Your task to perform on an android device: make emails show in primary in the gmail app Image 0: 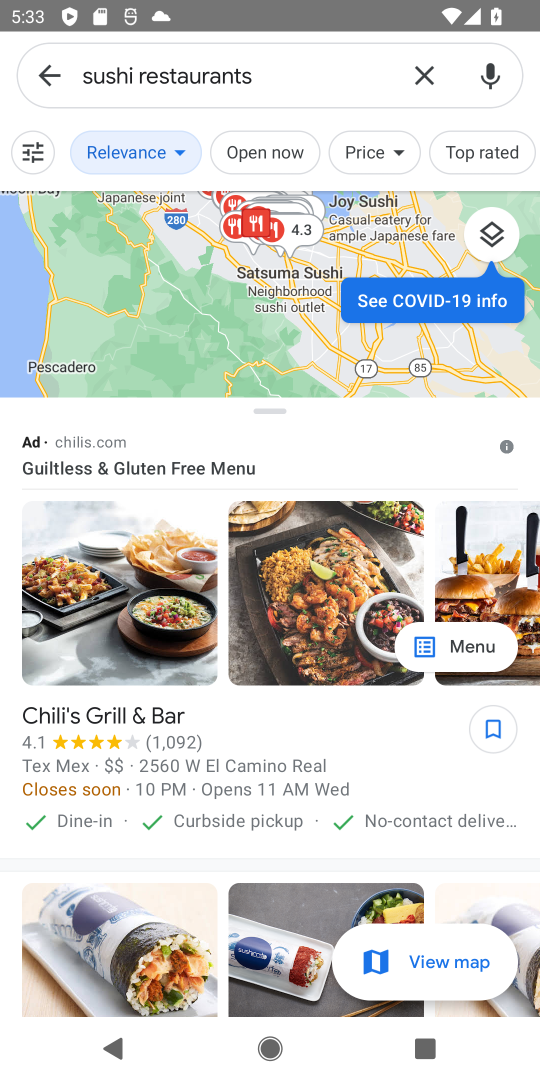
Step 0: press back button
Your task to perform on an android device: make emails show in primary in the gmail app Image 1: 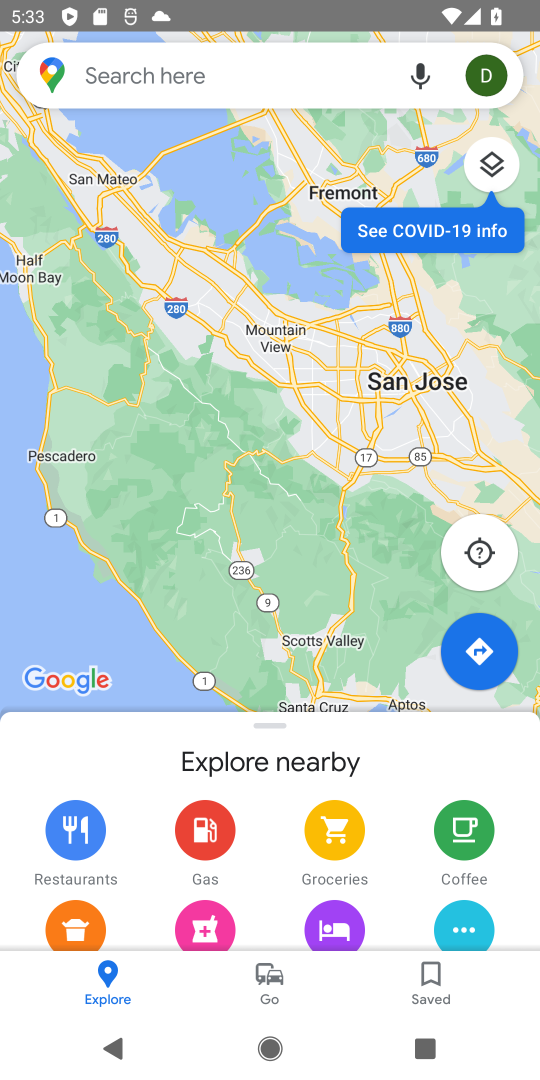
Step 1: press back button
Your task to perform on an android device: make emails show in primary in the gmail app Image 2: 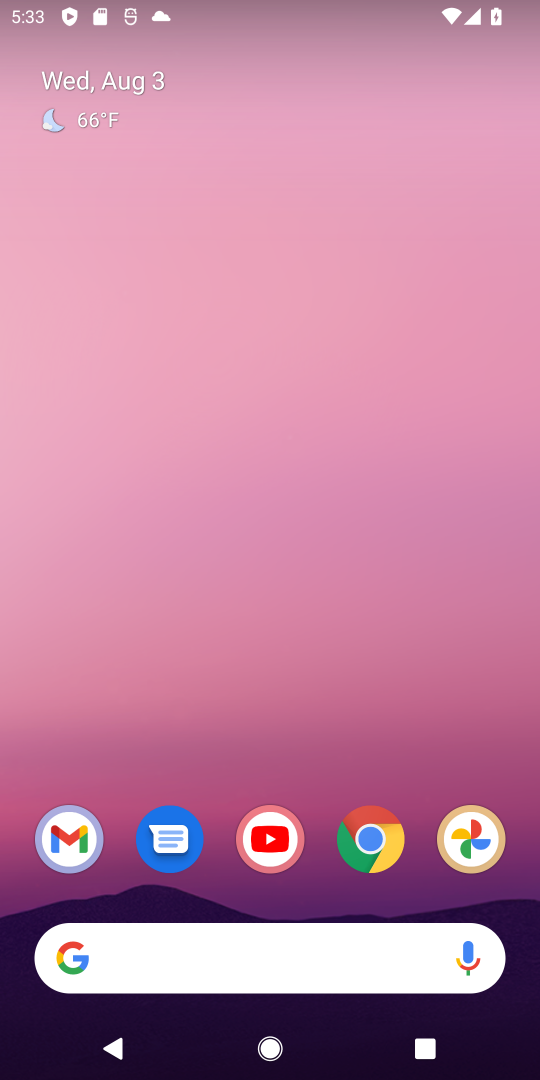
Step 2: click (70, 832)
Your task to perform on an android device: make emails show in primary in the gmail app Image 3: 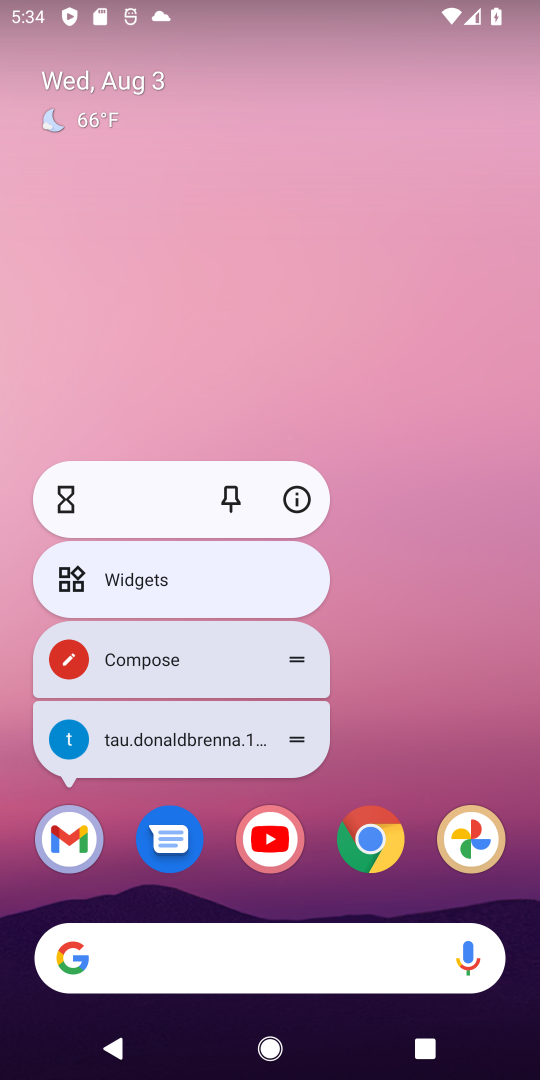
Step 3: click (47, 822)
Your task to perform on an android device: make emails show in primary in the gmail app Image 4: 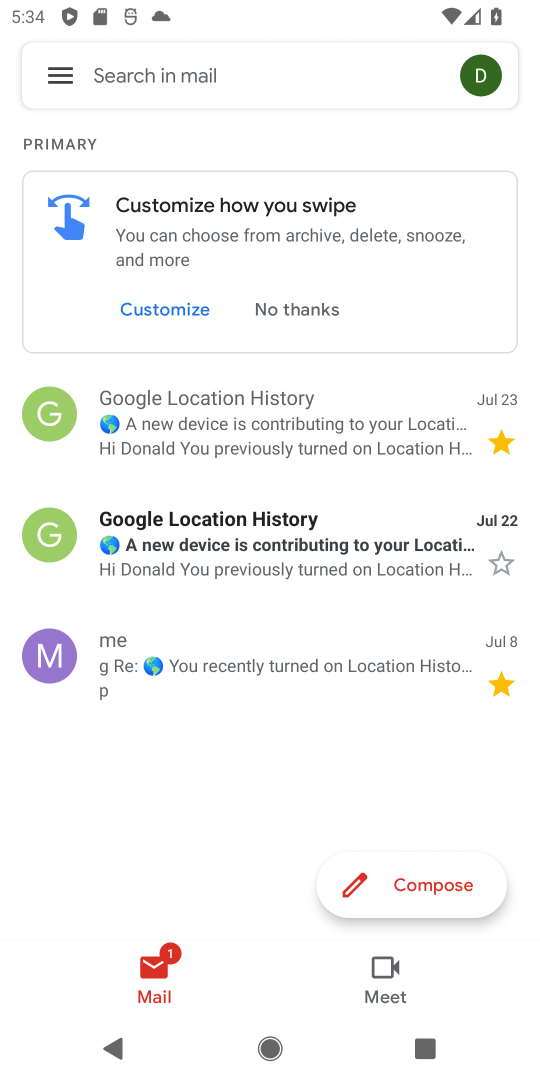
Step 4: click (51, 63)
Your task to perform on an android device: make emails show in primary in the gmail app Image 5: 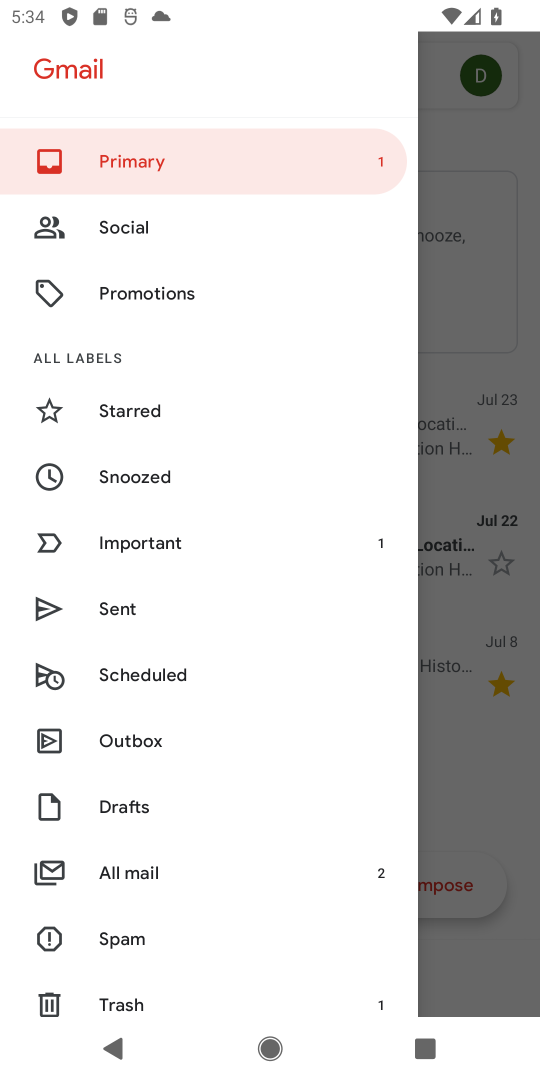
Step 5: drag from (156, 946) to (284, 107)
Your task to perform on an android device: make emails show in primary in the gmail app Image 6: 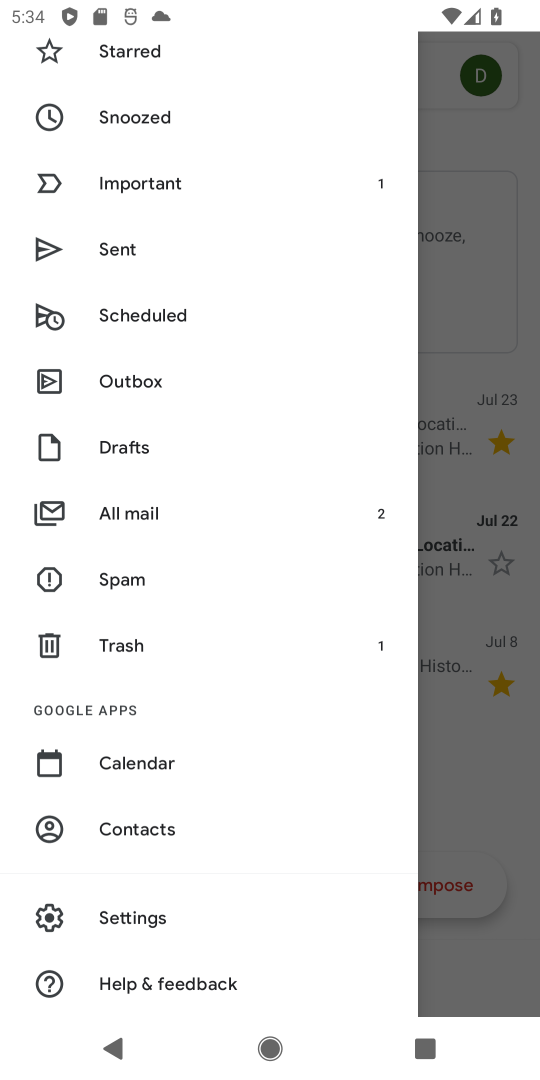
Step 6: click (149, 913)
Your task to perform on an android device: make emails show in primary in the gmail app Image 7: 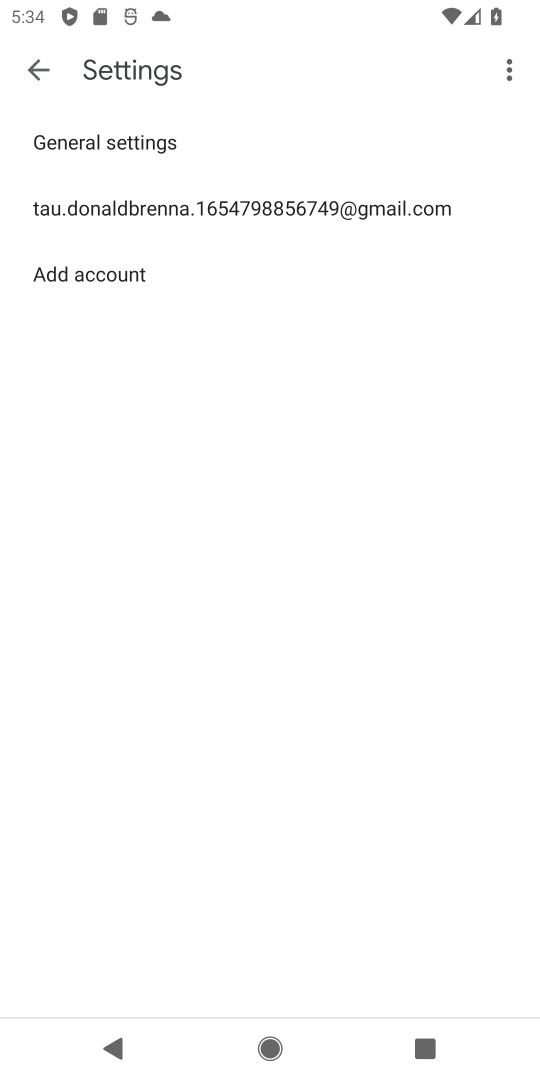
Step 7: click (187, 198)
Your task to perform on an android device: make emails show in primary in the gmail app Image 8: 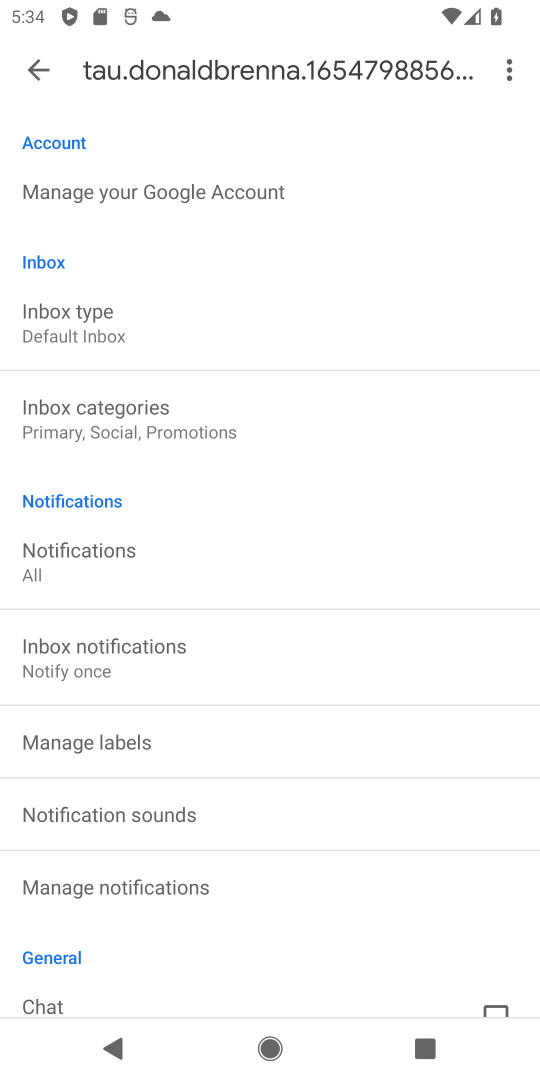
Step 8: click (124, 420)
Your task to perform on an android device: make emails show in primary in the gmail app Image 9: 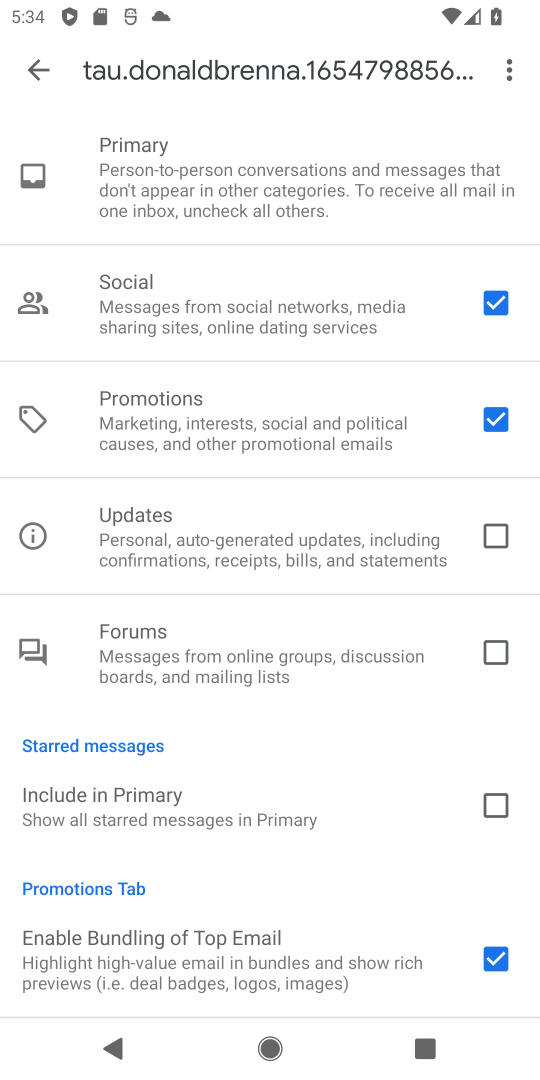
Step 9: click (487, 799)
Your task to perform on an android device: make emails show in primary in the gmail app Image 10: 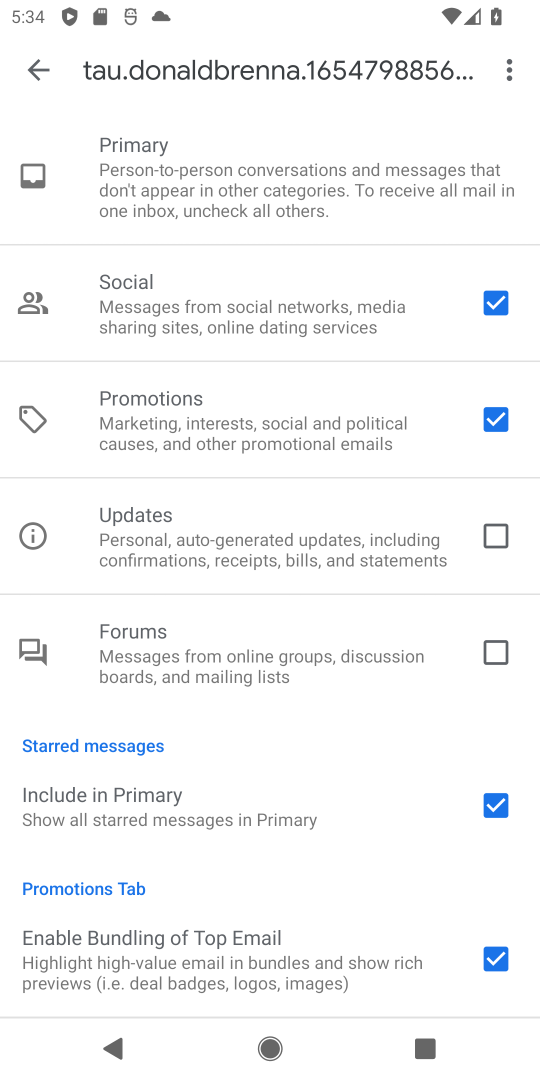
Step 10: click (486, 538)
Your task to perform on an android device: make emails show in primary in the gmail app Image 11: 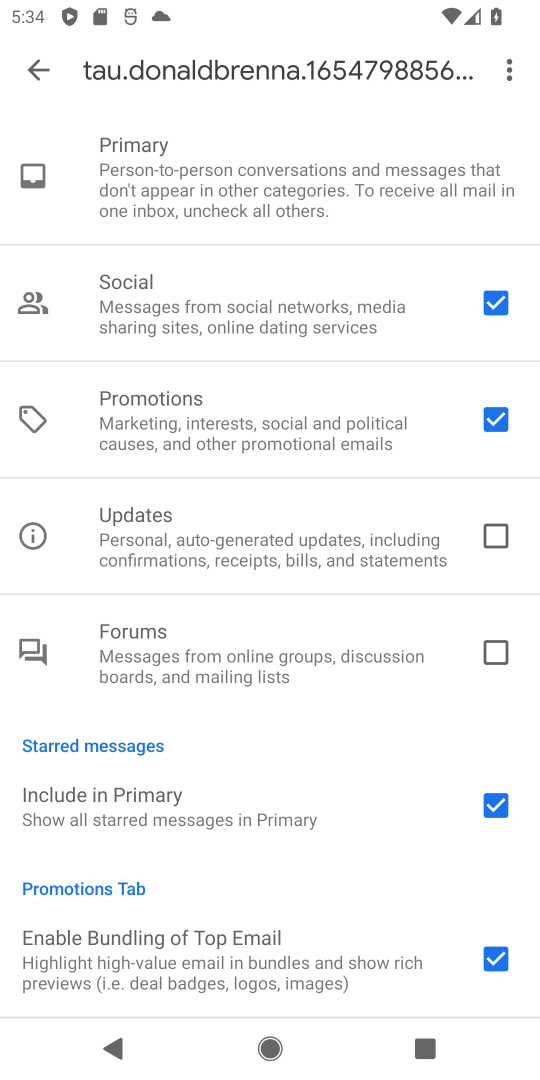
Step 11: click (491, 673)
Your task to perform on an android device: make emails show in primary in the gmail app Image 12: 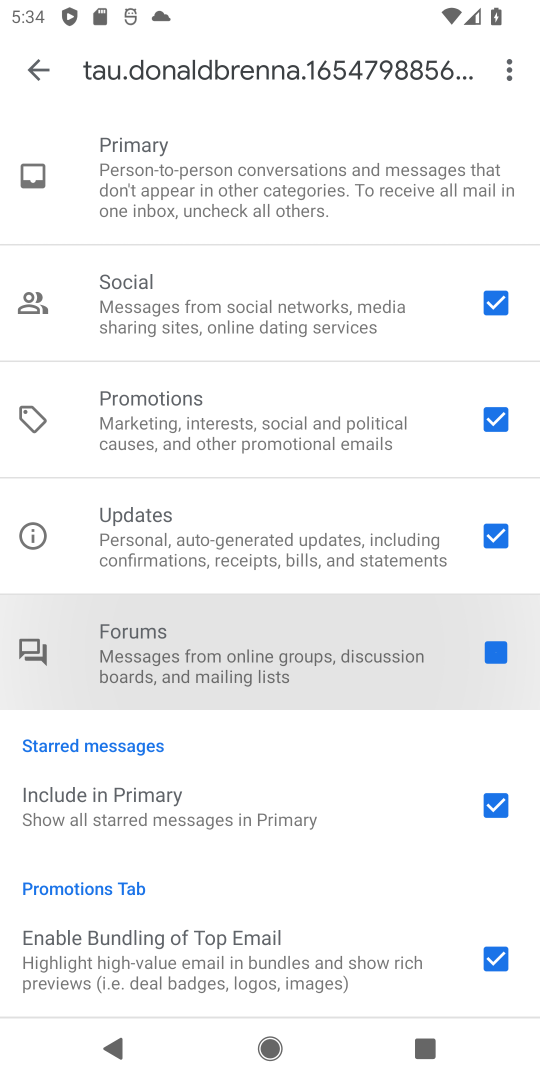
Step 12: task complete